Your task to perform on an android device: allow cookies in the chrome app Image 0: 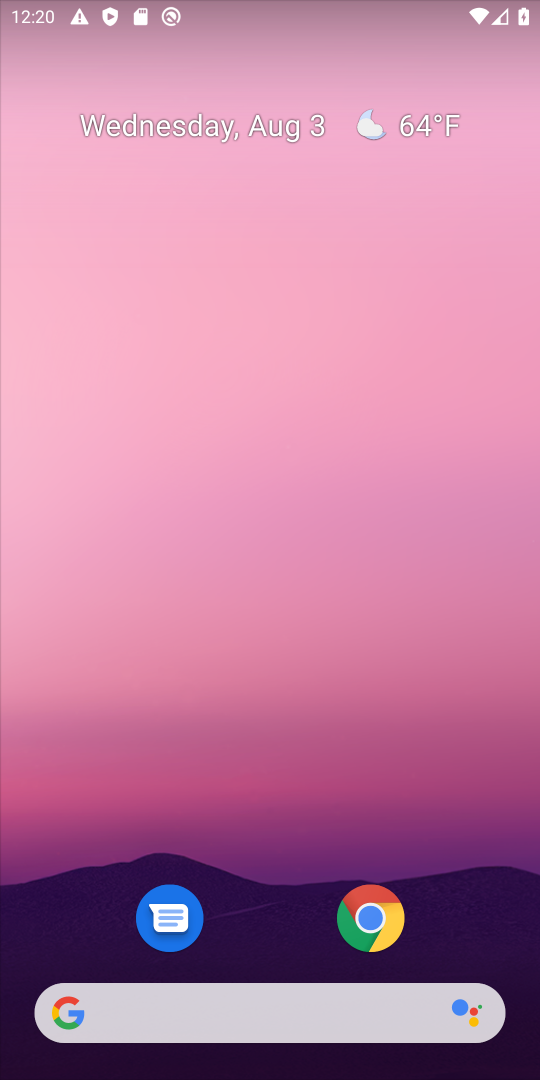
Step 0: click (395, 924)
Your task to perform on an android device: allow cookies in the chrome app Image 1: 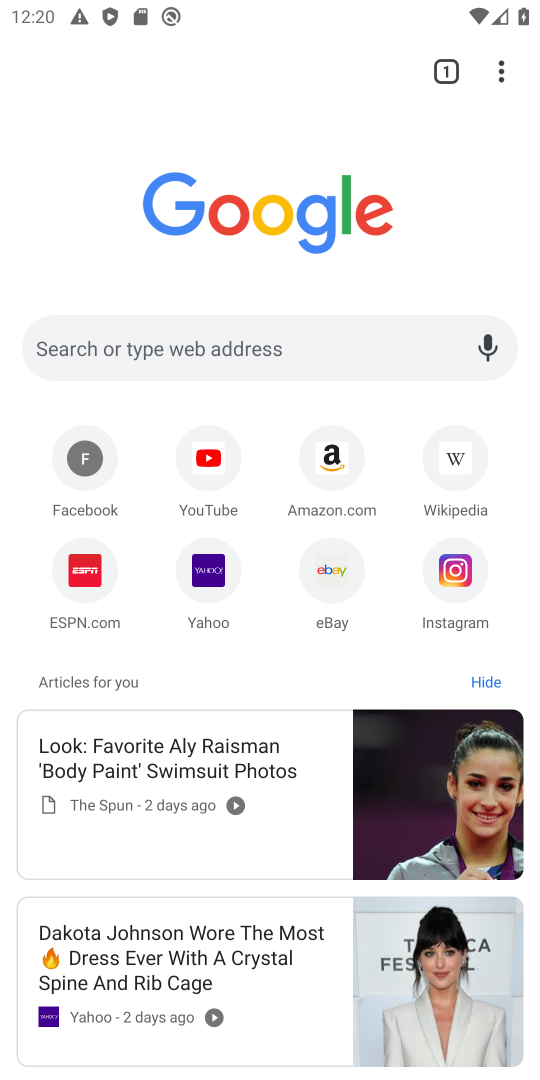
Step 1: click (502, 87)
Your task to perform on an android device: allow cookies in the chrome app Image 2: 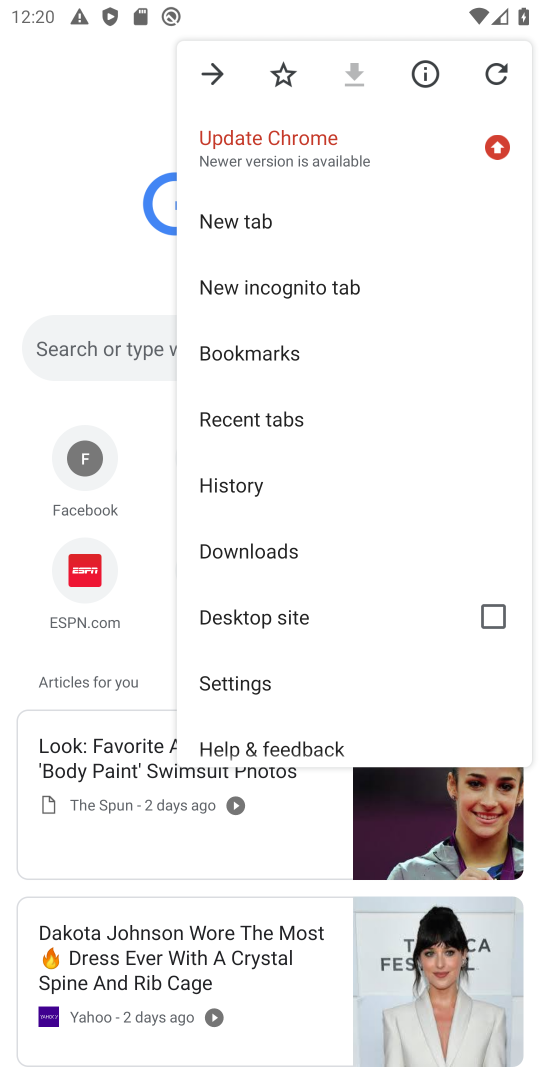
Step 2: click (245, 675)
Your task to perform on an android device: allow cookies in the chrome app Image 3: 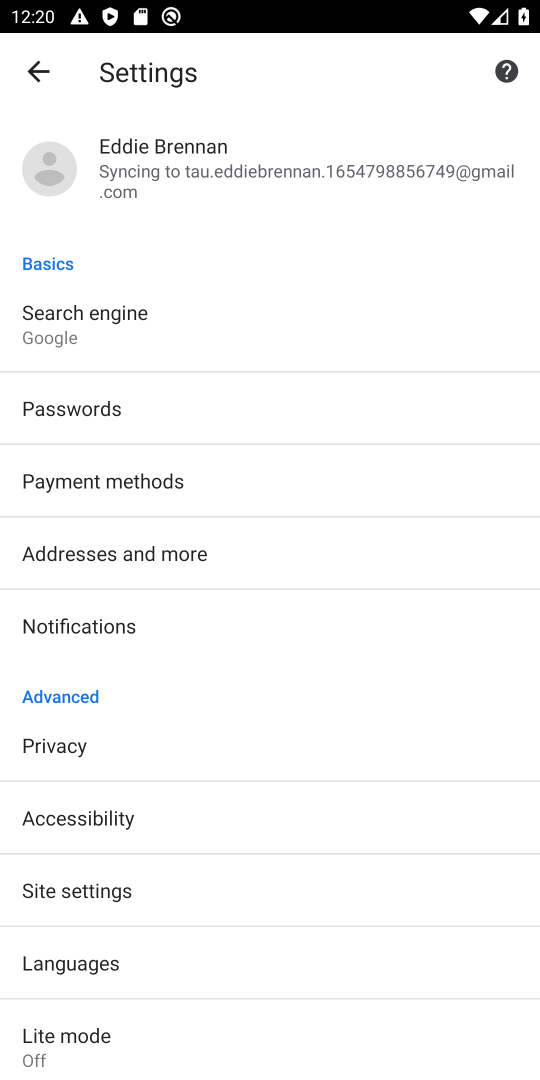
Step 3: click (130, 878)
Your task to perform on an android device: allow cookies in the chrome app Image 4: 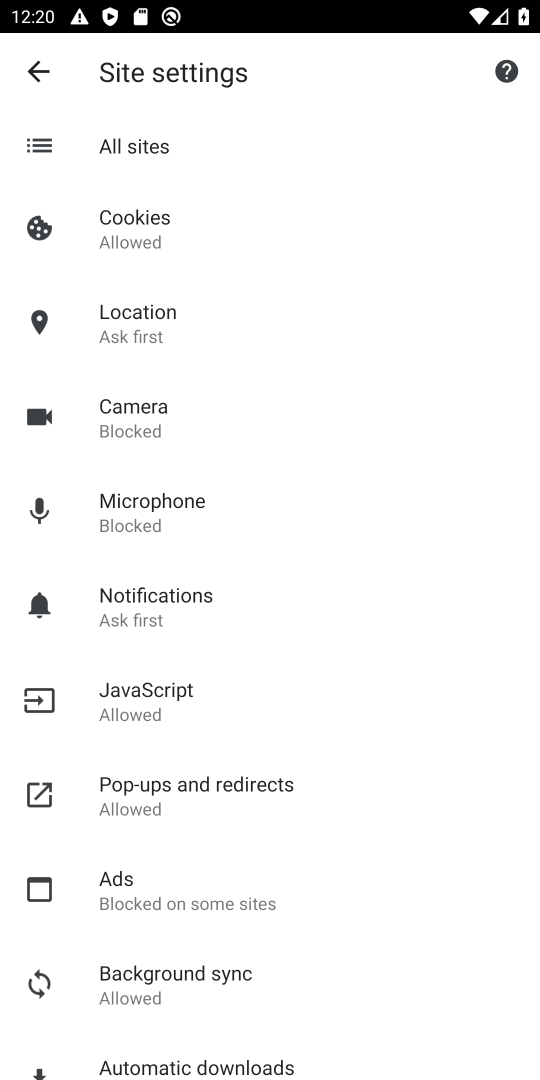
Step 4: click (161, 228)
Your task to perform on an android device: allow cookies in the chrome app Image 5: 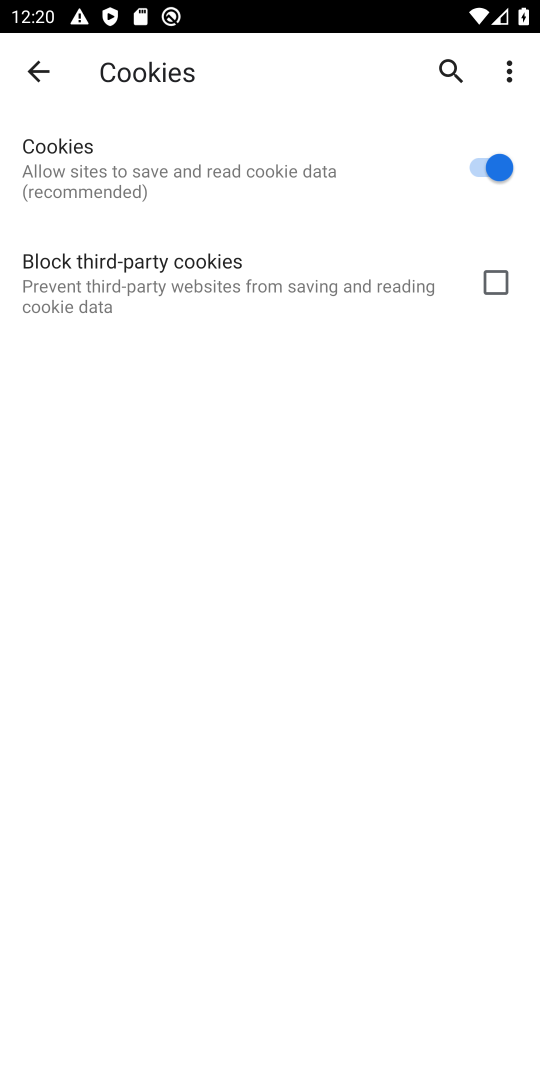
Step 5: task complete